Your task to perform on an android device: turn notification dots off Image 0: 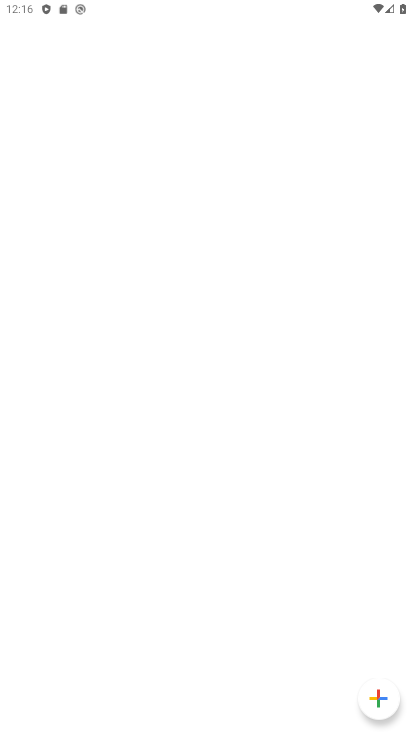
Step 0: press home button
Your task to perform on an android device: turn notification dots off Image 1: 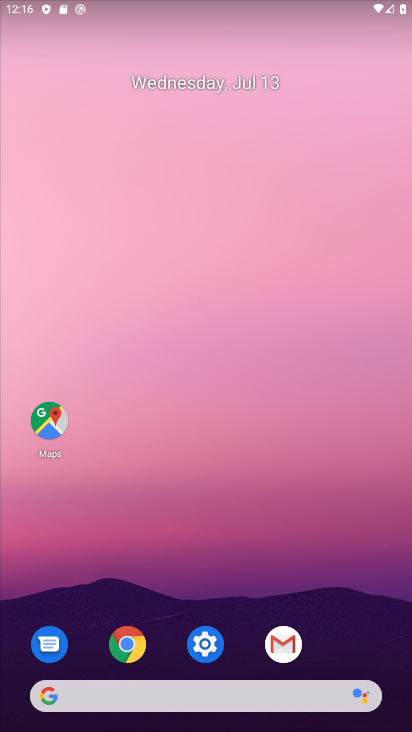
Step 1: click (213, 633)
Your task to perform on an android device: turn notification dots off Image 2: 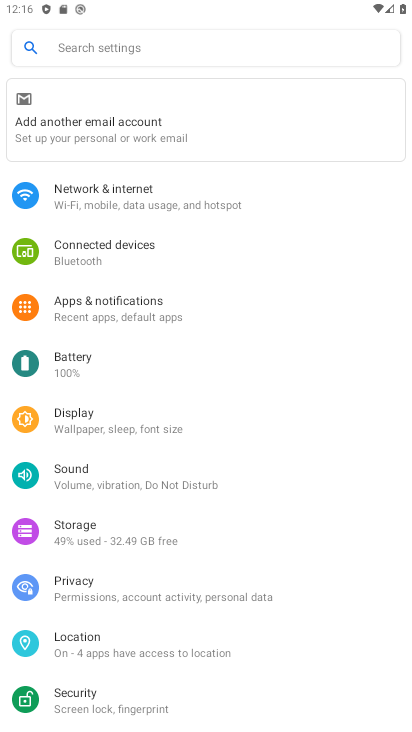
Step 2: click (99, 54)
Your task to perform on an android device: turn notification dots off Image 3: 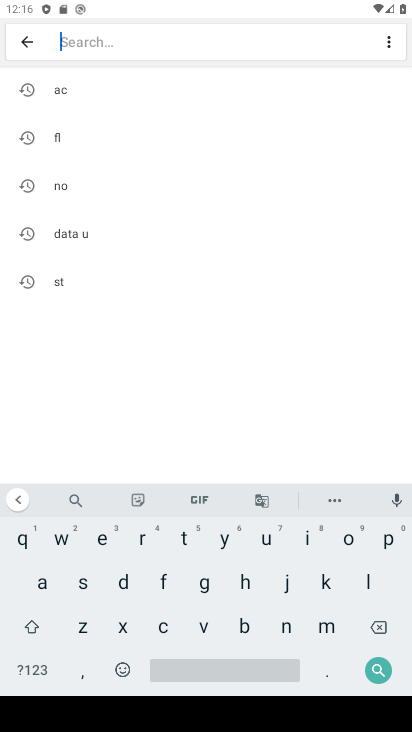
Step 3: click (90, 186)
Your task to perform on an android device: turn notification dots off Image 4: 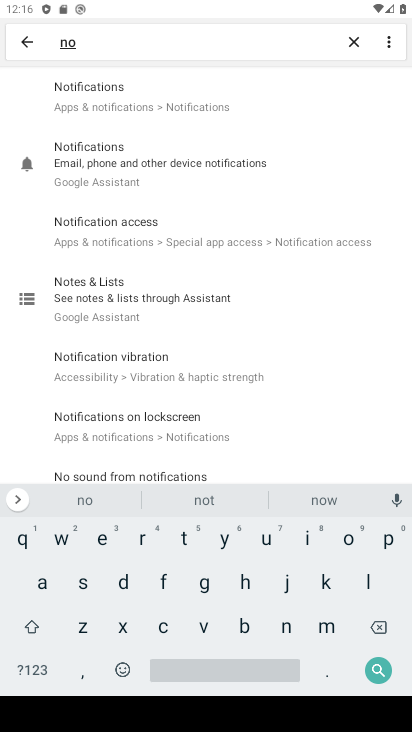
Step 4: click (137, 89)
Your task to perform on an android device: turn notification dots off Image 5: 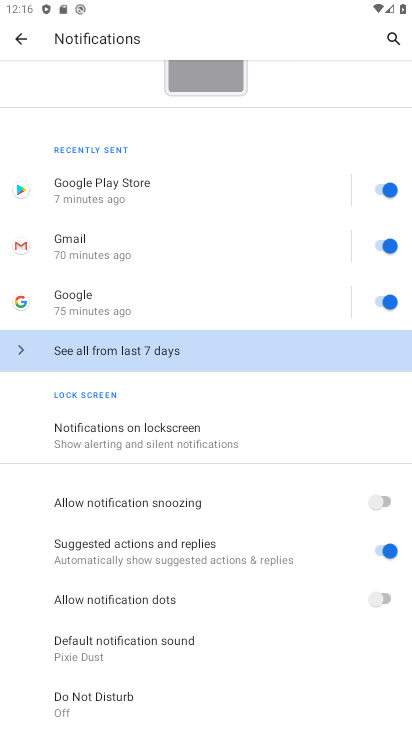
Step 5: click (312, 590)
Your task to perform on an android device: turn notification dots off Image 6: 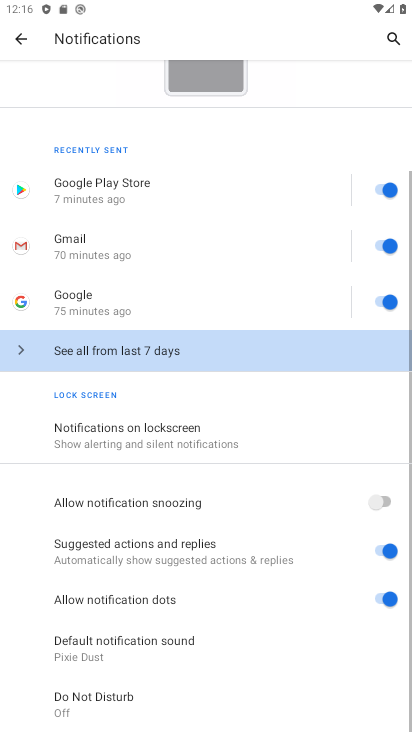
Step 6: click (312, 590)
Your task to perform on an android device: turn notification dots off Image 7: 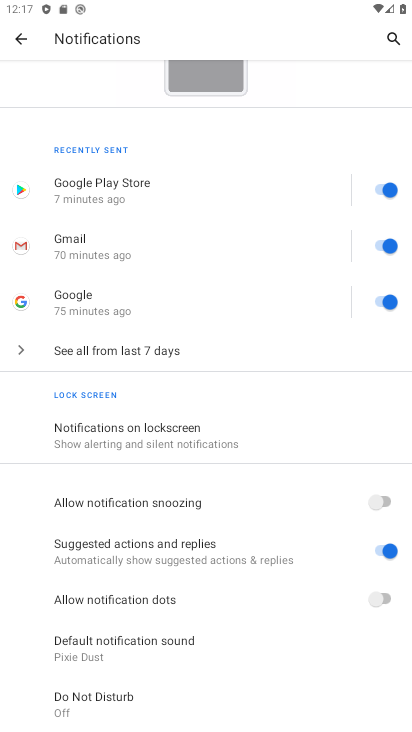
Step 7: task complete